Your task to perform on an android device: Turn off the flashlight Image 0: 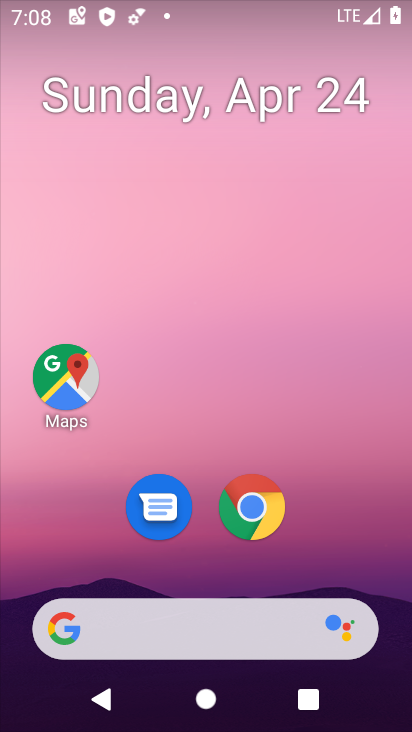
Step 0: drag from (390, 465) to (330, 100)
Your task to perform on an android device: Turn off the flashlight Image 1: 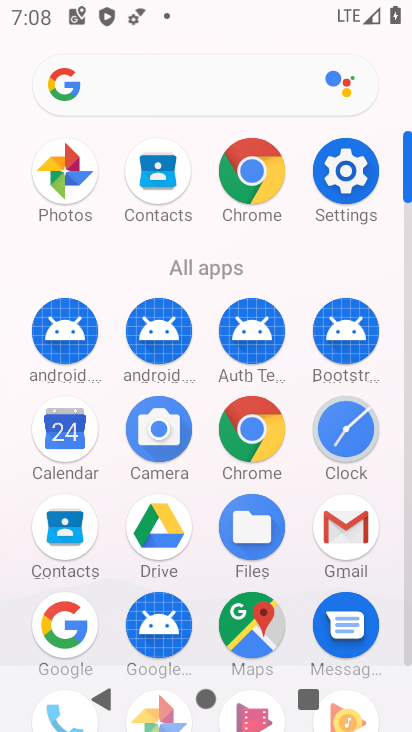
Step 1: click (352, 169)
Your task to perform on an android device: Turn off the flashlight Image 2: 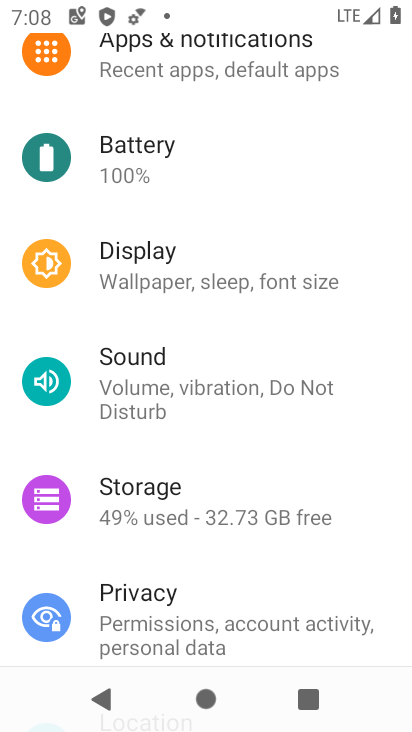
Step 2: task complete